Your task to perform on an android device: check the backup settings in the google photos Image 0: 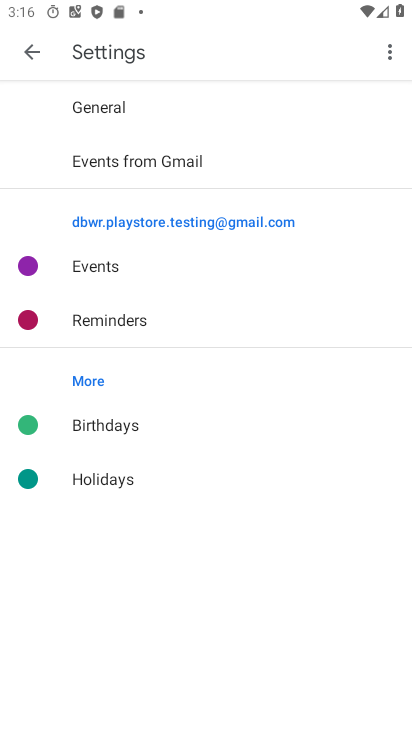
Step 0: press home button
Your task to perform on an android device: check the backup settings in the google photos Image 1: 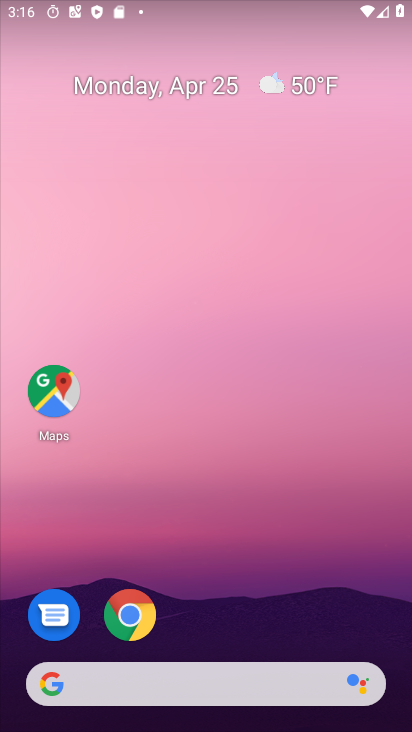
Step 1: drag from (209, 726) to (210, 175)
Your task to perform on an android device: check the backup settings in the google photos Image 2: 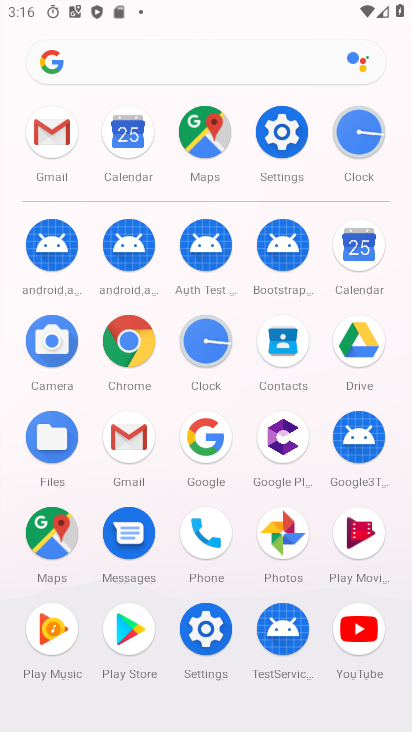
Step 2: click (286, 531)
Your task to perform on an android device: check the backup settings in the google photos Image 3: 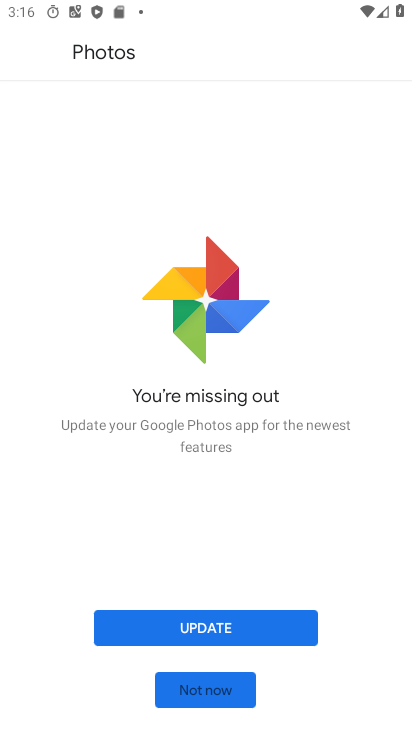
Step 3: click (203, 686)
Your task to perform on an android device: check the backup settings in the google photos Image 4: 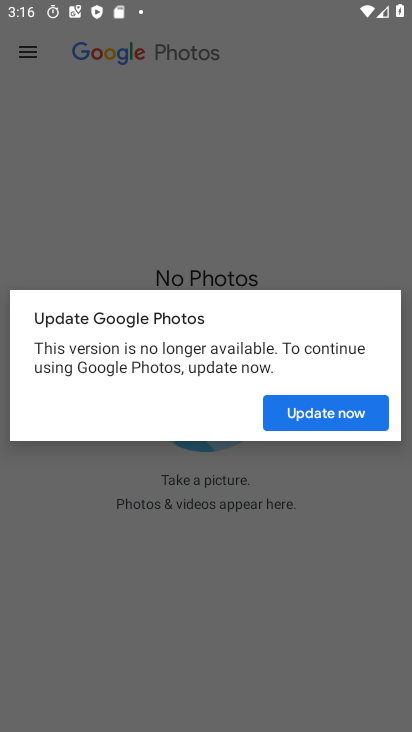
Step 4: task complete